Your task to perform on an android device: Open the phone app and click the voicemail tab. Image 0: 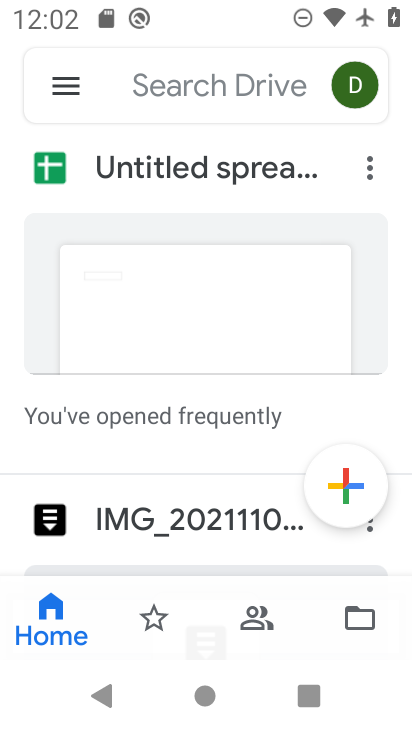
Step 0: press back button
Your task to perform on an android device: Open the phone app and click the voicemail tab. Image 1: 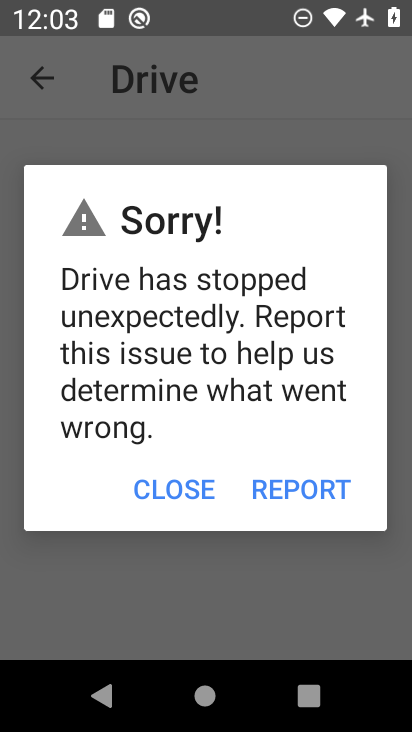
Step 1: press back button
Your task to perform on an android device: Open the phone app and click the voicemail tab. Image 2: 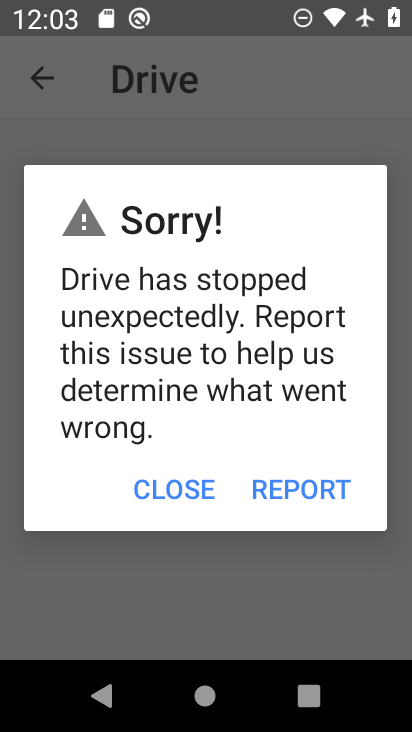
Step 2: press home button
Your task to perform on an android device: Open the phone app and click the voicemail tab. Image 3: 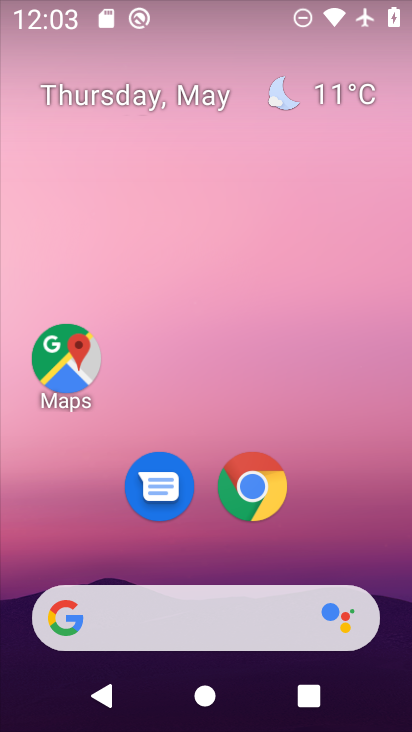
Step 3: drag from (353, 450) to (272, 33)
Your task to perform on an android device: Open the phone app and click the voicemail tab. Image 4: 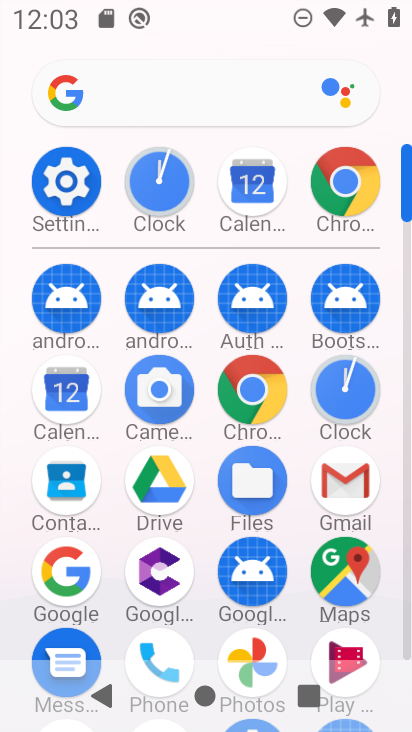
Step 4: drag from (1, 585) to (16, 319)
Your task to perform on an android device: Open the phone app and click the voicemail tab. Image 5: 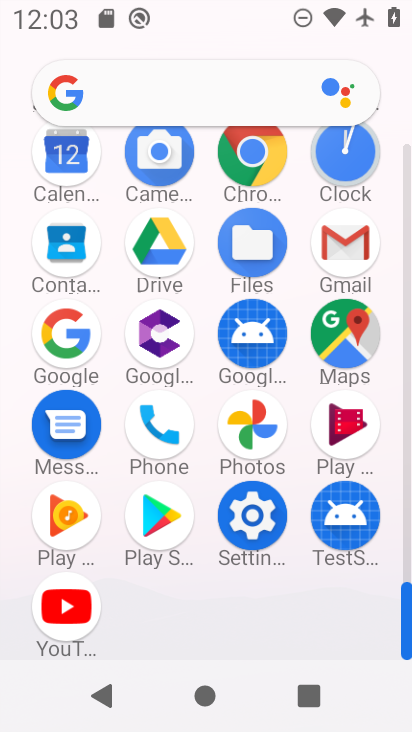
Step 5: drag from (11, 203) to (3, 409)
Your task to perform on an android device: Open the phone app and click the voicemail tab. Image 6: 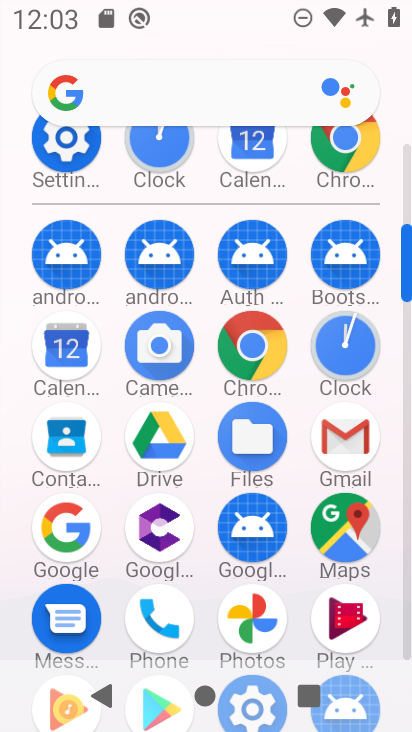
Step 6: drag from (5, 263) to (18, 527)
Your task to perform on an android device: Open the phone app and click the voicemail tab. Image 7: 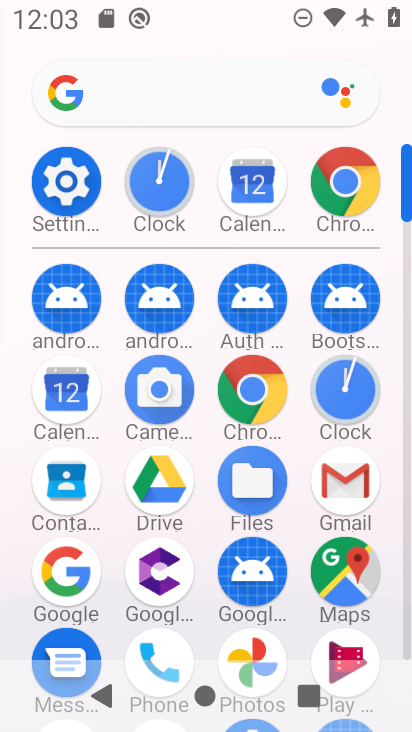
Step 7: drag from (16, 576) to (11, 272)
Your task to perform on an android device: Open the phone app and click the voicemail tab. Image 8: 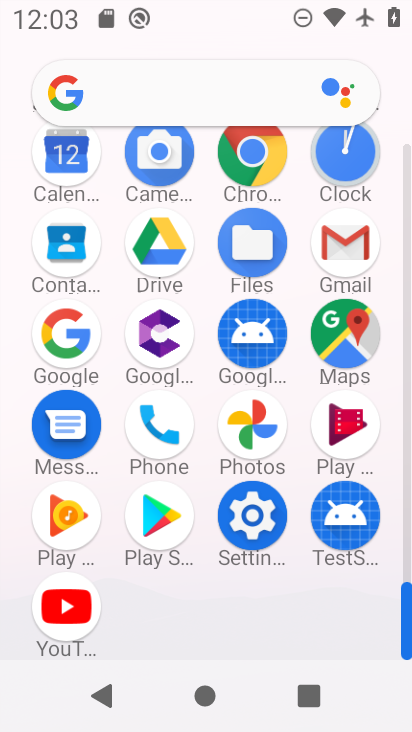
Step 8: drag from (17, 241) to (35, 514)
Your task to perform on an android device: Open the phone app and click the voicemail tab. Image 9: 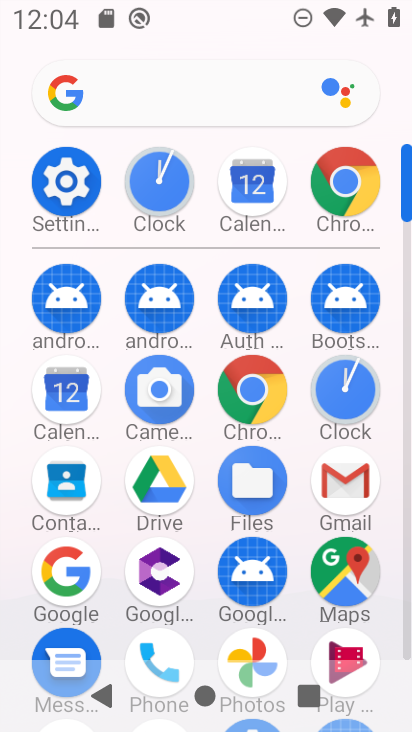
Step 9: drag from (14, 195) to (21, 158)
Your task to perform on an android device: Open the phone app and click the voicemail tab. Image 10: 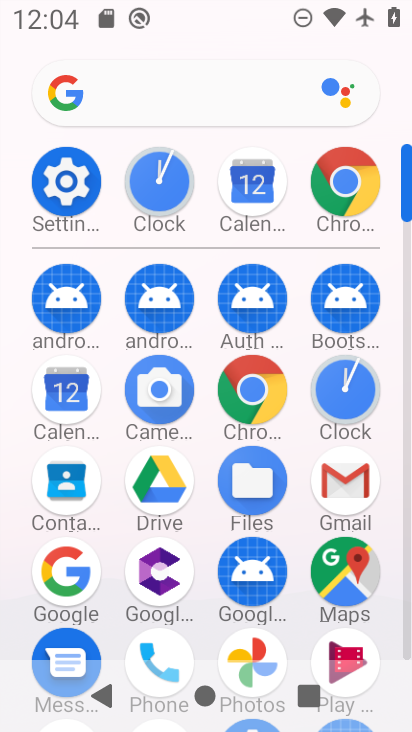
Step 10: drag from (1, 474) to (3, 303)
Your task to perform on an android device: Open the phone app and click the voicemail tab. Image 11: 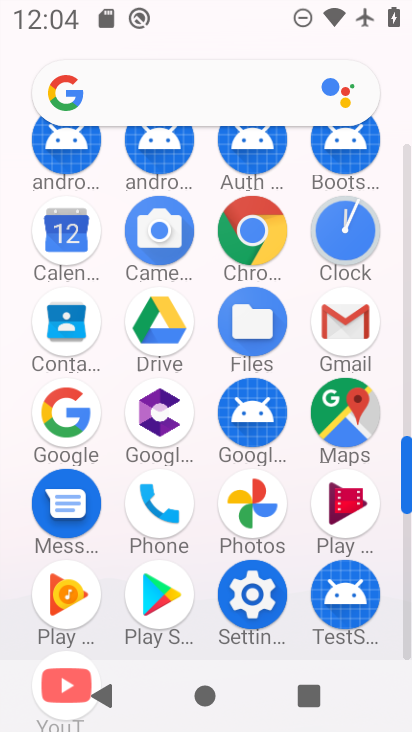
Step 11: drag from (22, 428) to (50, 217)
Your task to perform on an android device: Open the phone app and click the voicemail tab. Image 12: 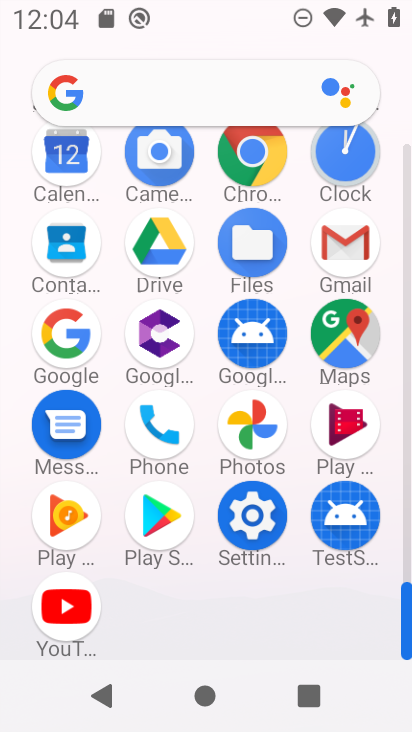
Step 12: drag from (17, 125) to (36, 360)
Your task to perform on an android device: Open the phone app and click the voicemail tab. Image 13: 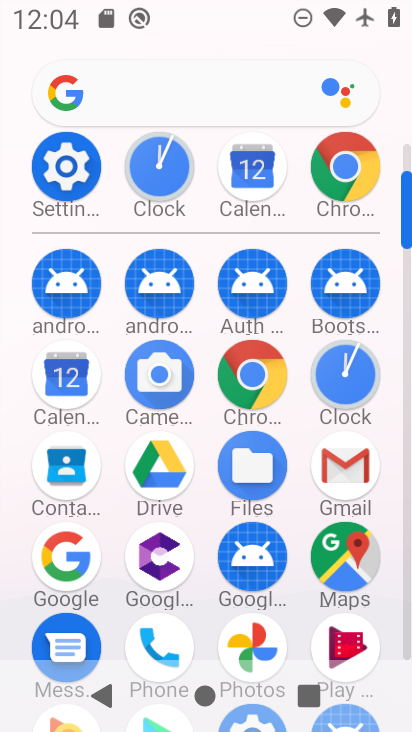
Step 13: click (161, 644)
Your task to perform on an android device: Open the phone app and click the voicemail tab. Image 14: 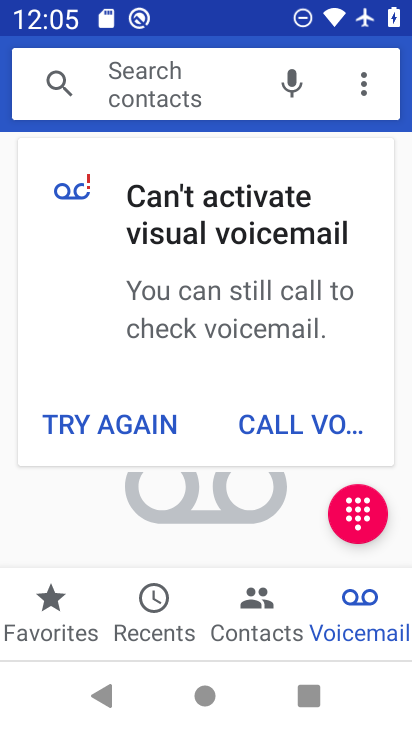
Step 14: task complete